Your task to perform on an android device: clear history in the chrome app Image 0: 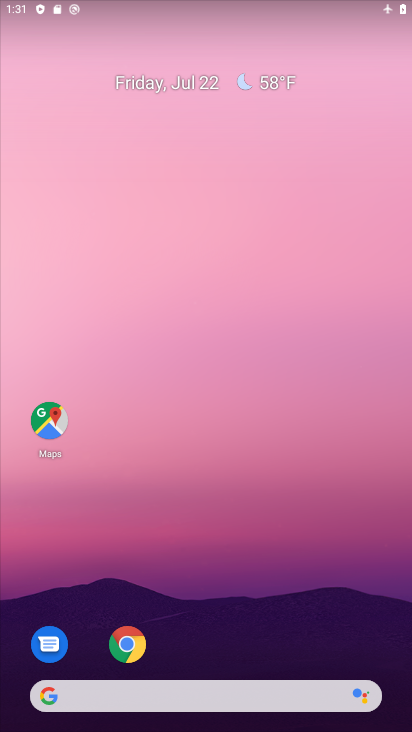
Step 0: drag from (177, 690) to (183, 296)
Your task to perform on an android device: clear history in the chrome app Image 1: 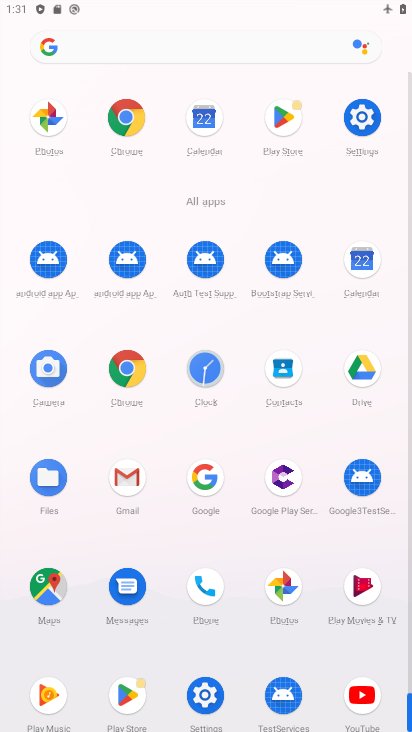
Step 1: click (121, 372)
Your task to perform on an android device: clear history in the chrome app Image 2: 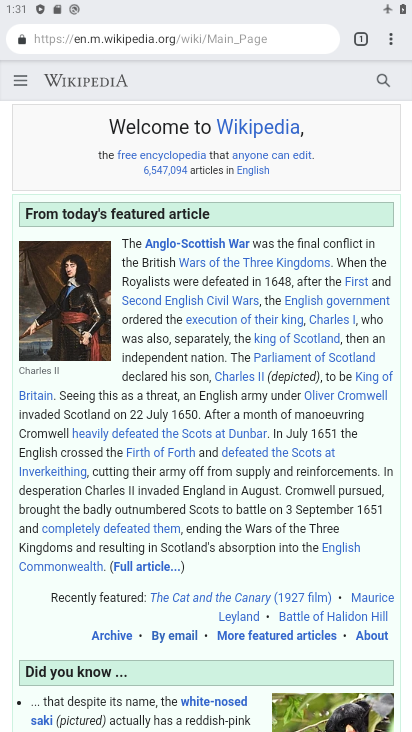
Step 2: click (383, 36)
Your task to perform on an android device: clear history in the chrome app Image 3: 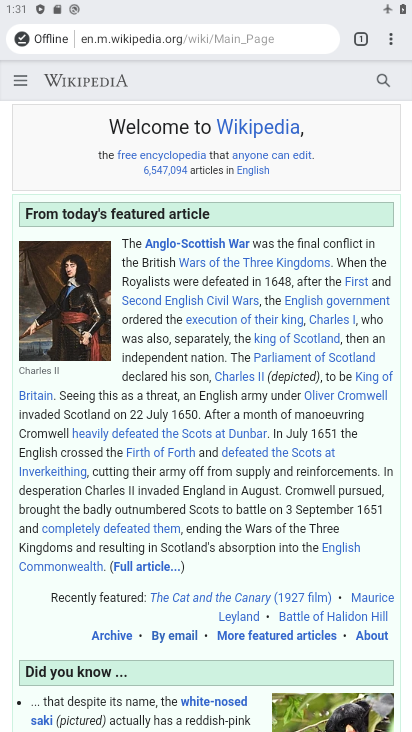
Step 3: click (387, 39)
Your task to perform on an android device: clear history in the chrome app Image 4: 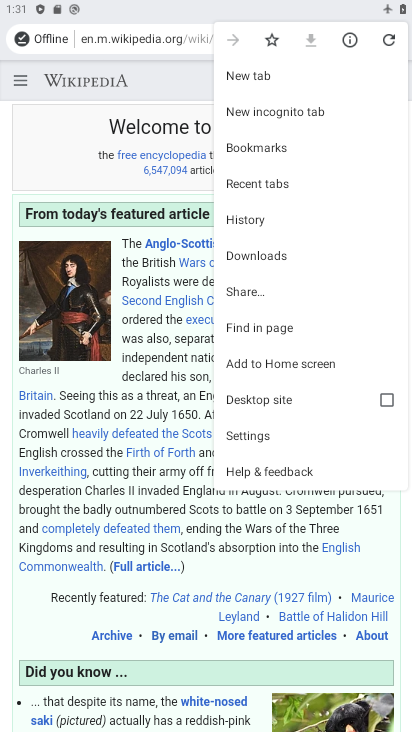
Step 4: click (259, 221)
Your task to perform on an android device: clear history in the chrome app Image 5: 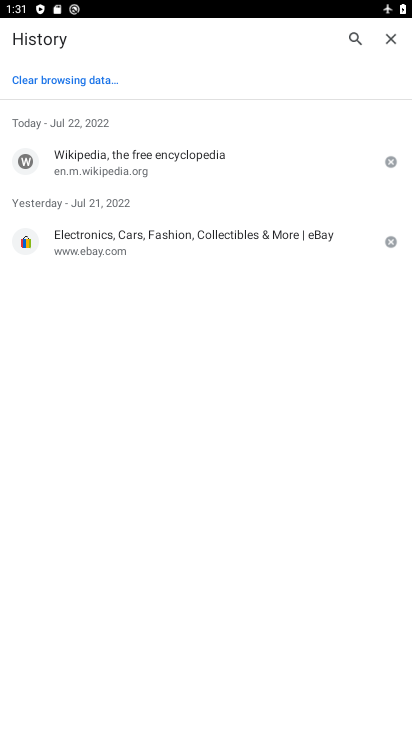
Step 5: click (48, 79)
Your task to perform on an android device: clear history in the chrome app Image 6: 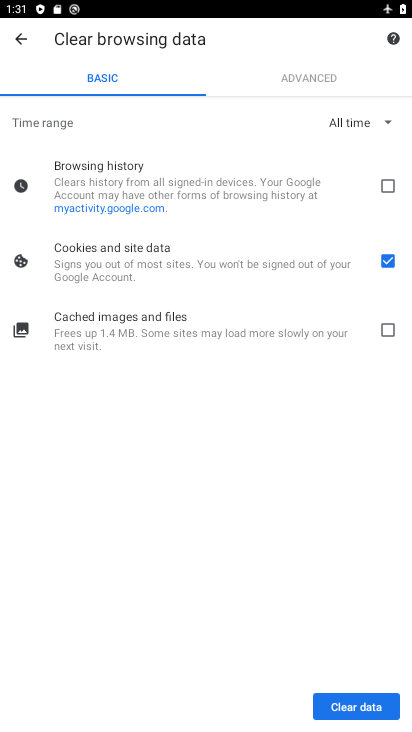
Step 6: click (385, 327)
Your task to perform on an android device: clear history in the chrome app Image 7: 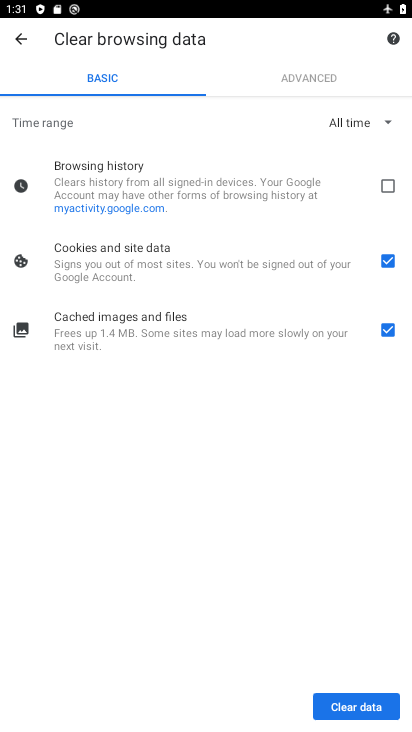
Step 7: click (387, 178)
Your task to perform on an android device: clear history in the chrome app Image 8: 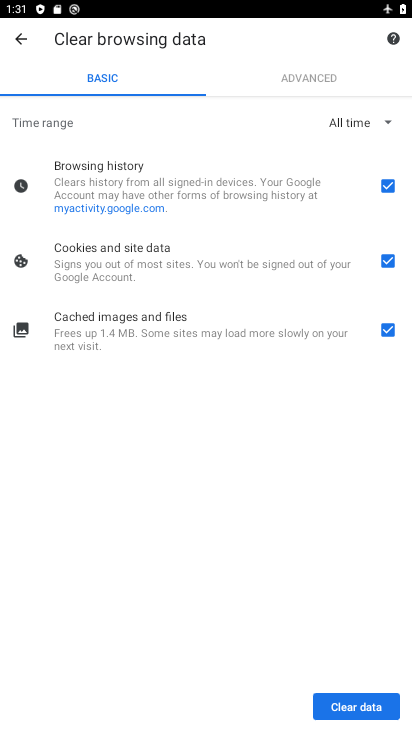
Step 8: click (326, 707)
Your task to perform on an android device: clear history in the chrome app Image 9: 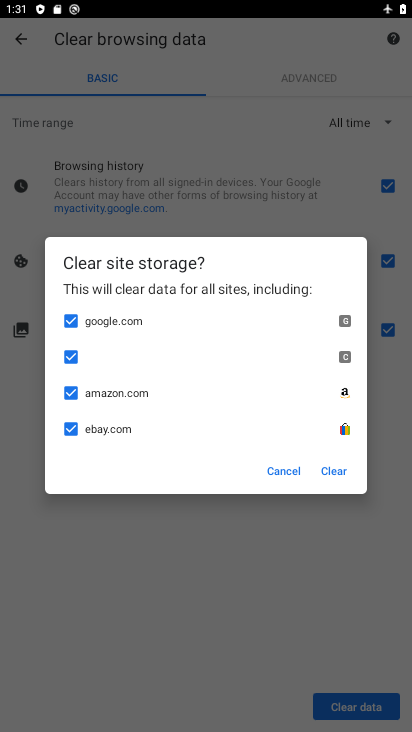
Step 9: click (331, 471)
Your task to perform on an android device: clear history in the chrome app Image 10: 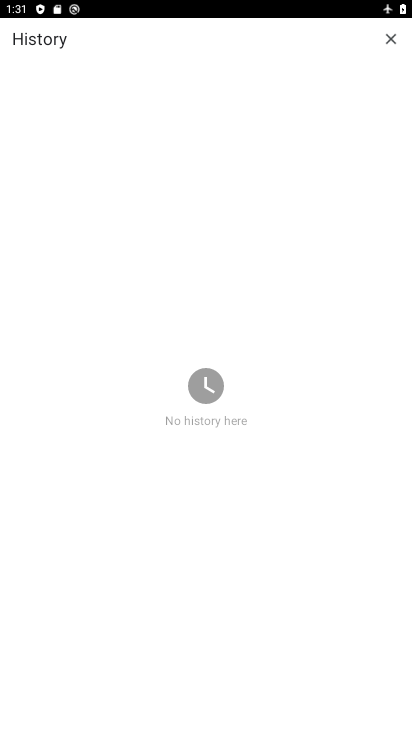
Step 10: task complete